Your task to perform on an android device: read, delete, or share a saved page in the chrome app Image 0: 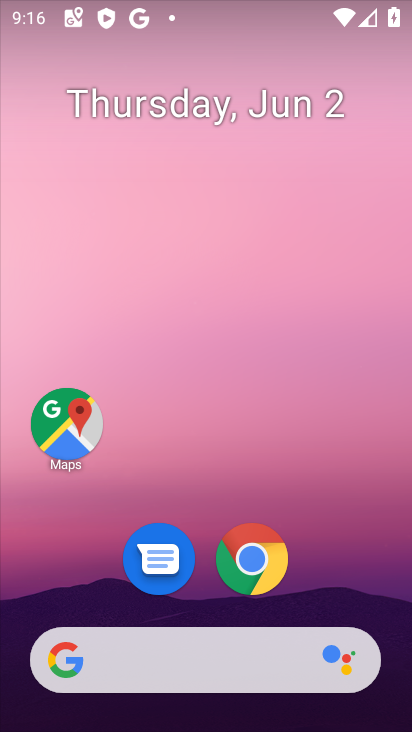
Step 0: click (240, 555)
Your task to perform on an android device: read, delete, or share a saved page in the chrome app Image 1: 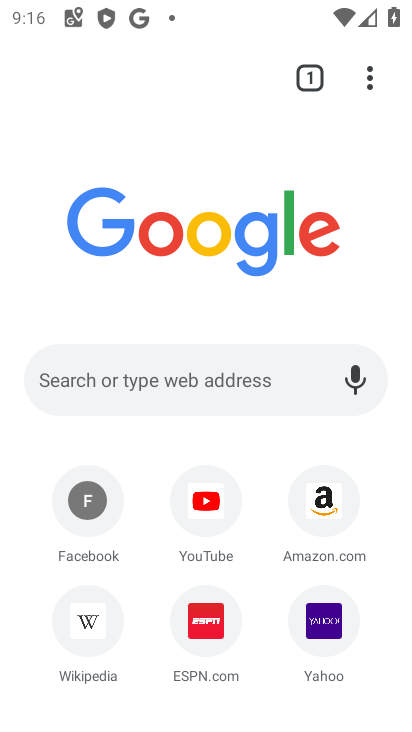
Step 1: click (365, 88)
Your task to perform on an android device: read, delete, or share a saved page in the chrome app Image 2: 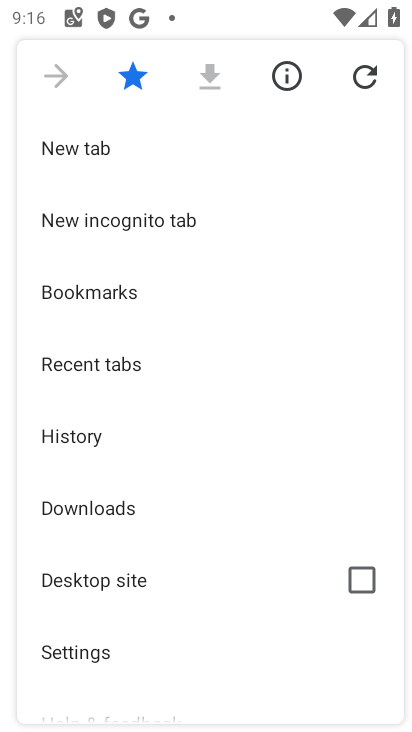
Step 2: click (83, 295)
Your task to perform on an android device: read, delete, or share a saved page in the chrome app Image 3: 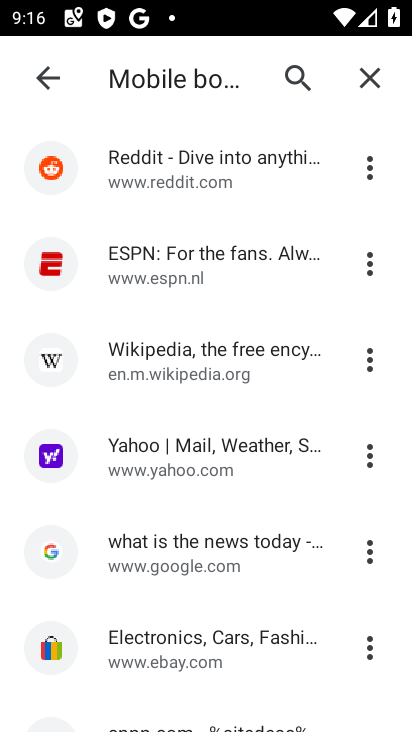
Step 3: click (361, 167)
Your task to perform on an android device: read, delete, or share a saved page in the chrome app Image 4: 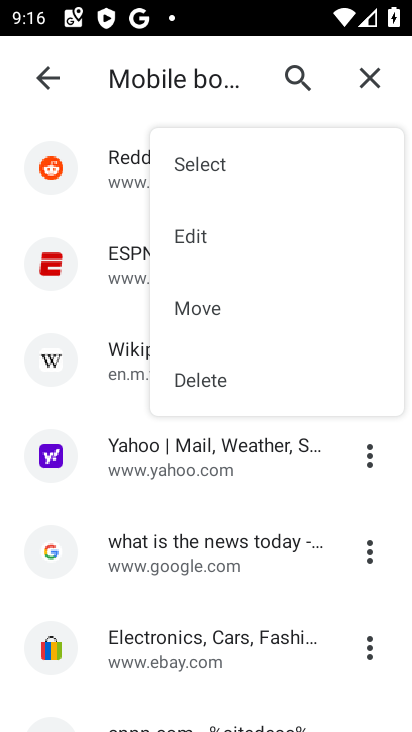
Step 4: click (214, 389)
Your task to perform on an android device: read, delete, or share a saved page in the chrome app Image 5: 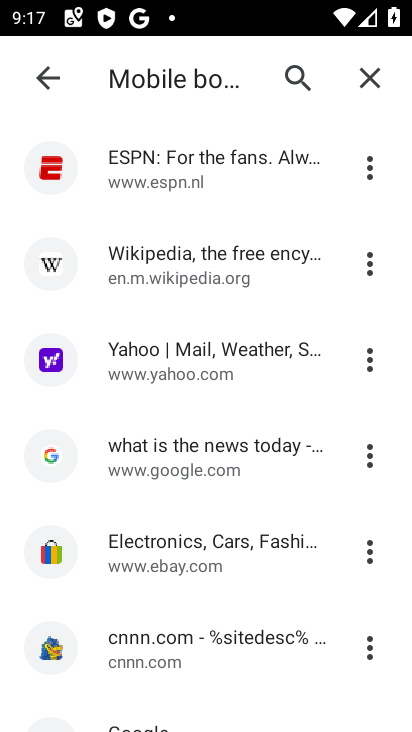
Step 5: task complete